Your task to perform on an android device: turn on translation in the chrome app Image 0: 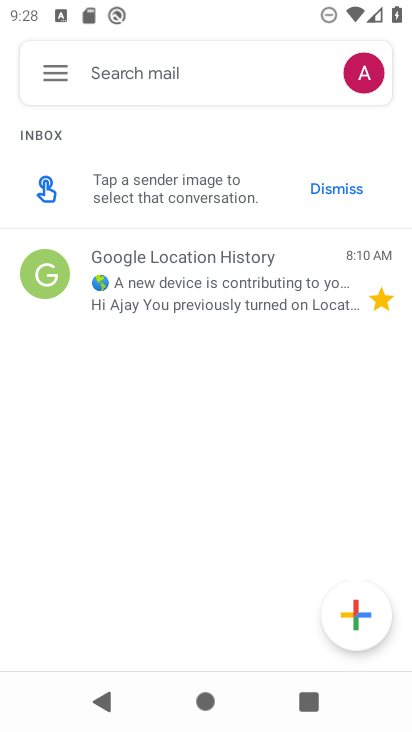
Step 0: press home button
Your task to perform on an android device: turn on translation in the chrome app Image 1: 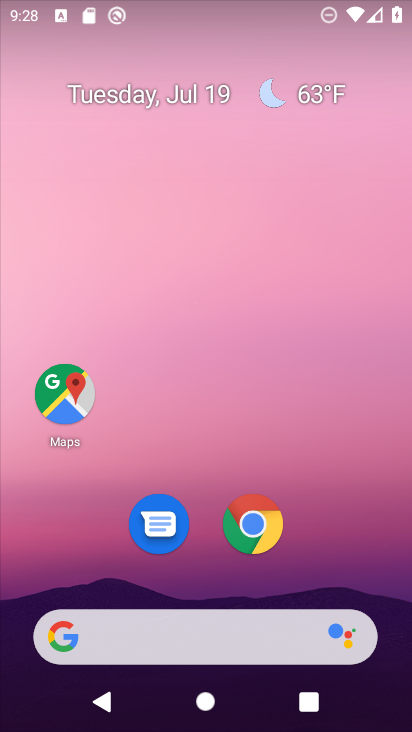
Step 1: click (254, 534)
Your task to perform on an android device: turn on translation in the chrome app Image 2: 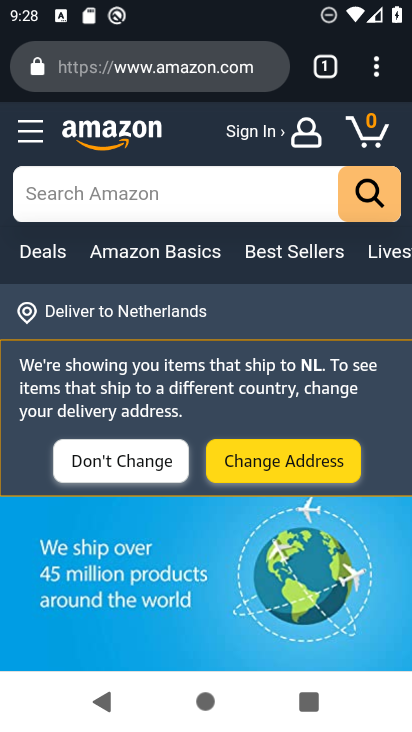
Step 2: click (374, 71)
Your task to perform on an android device: turn on translation in the chrome app Image 3: 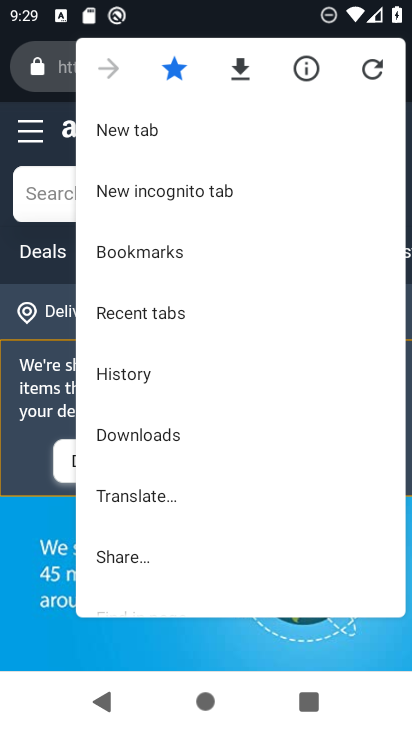
Step 3: drag from (248, 538) to (264, 77)
Your task to perform on an android device: turn on translation in the chrome app Image 4: 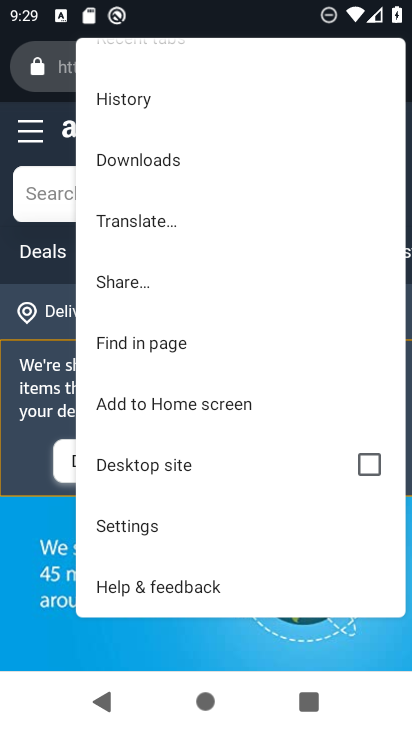
Step 4: click (178, 520)
Your task to perform on an android device: turn on translation in the chrome app Image 5: 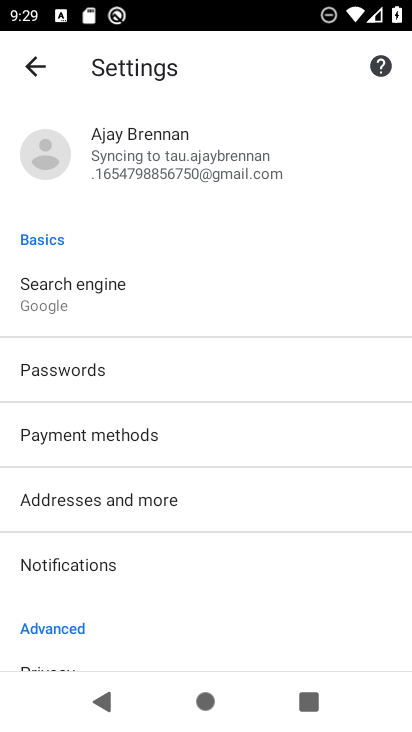
Step 5: drag from (215, 563) to (262, 181)
Your task to perform on an android device: turn on translation in the chrome app Image 6: 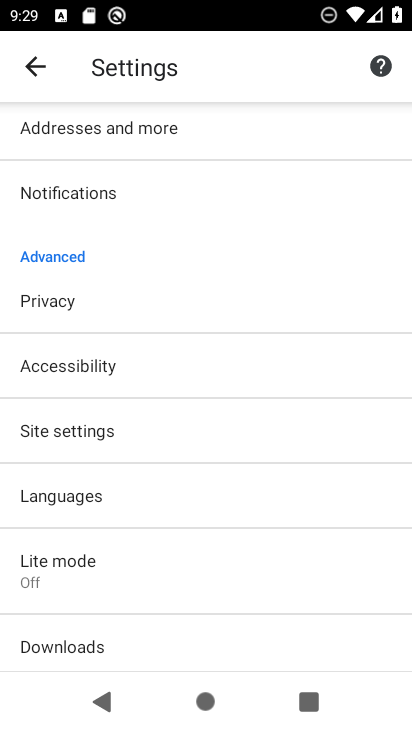
Step 6: click (106, 498)
Your task to perform on an android device: turn on translation in the chrome app Image 7: 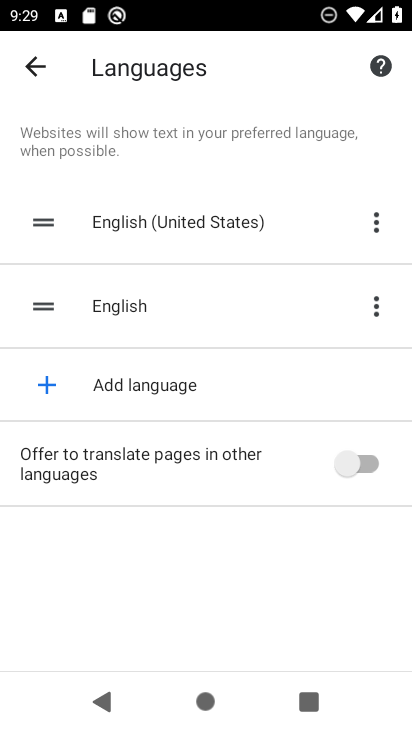
Step 7: click (364, 458)
Your task to perform on an android device: turn on translation in the chrome app Image 8: 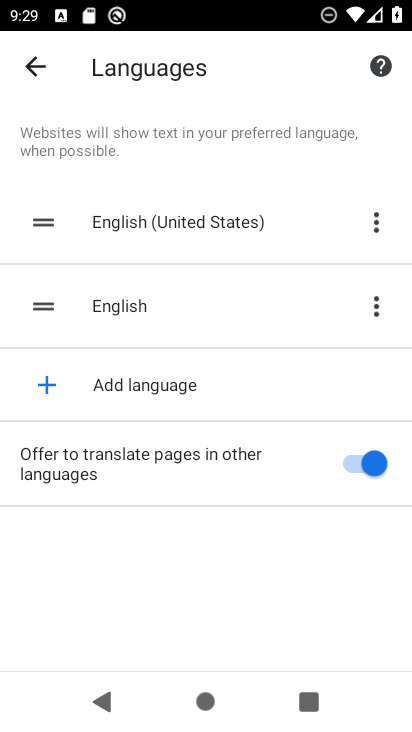
Step 8: task complete